Your task to perform on an android device: check storage Image 0: 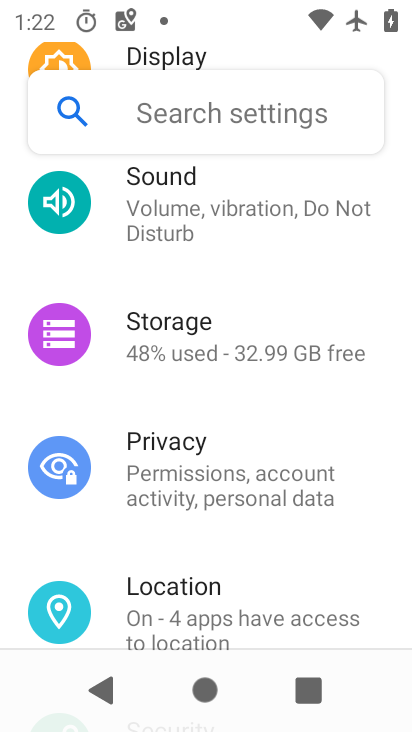
Step 0: press home button
Your task to perform on an android device: check storage Image 1: 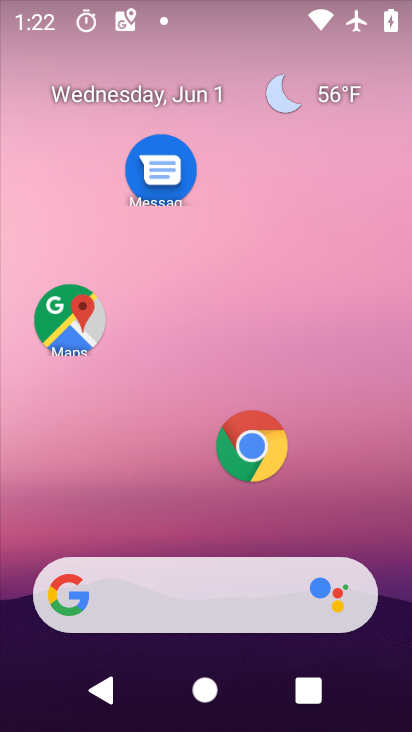
Step 1: drag from (196, 348) to (260, 55)
Your task to perform on an android device: check storage Image 2: 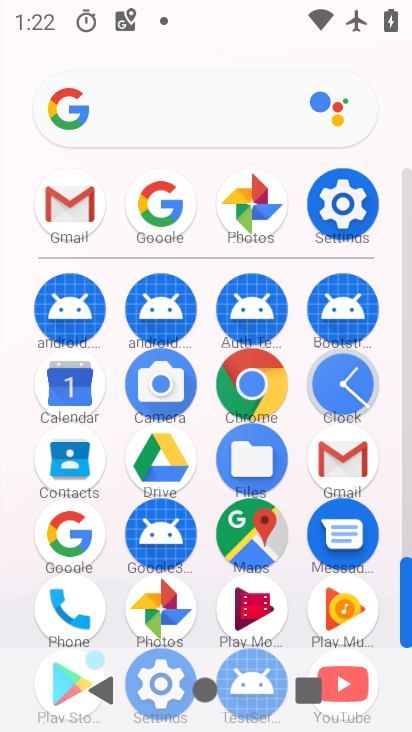
Step 2: drag from (212, 266) to (120, 18)
Your task to perform on an android device: check storage Image 3: 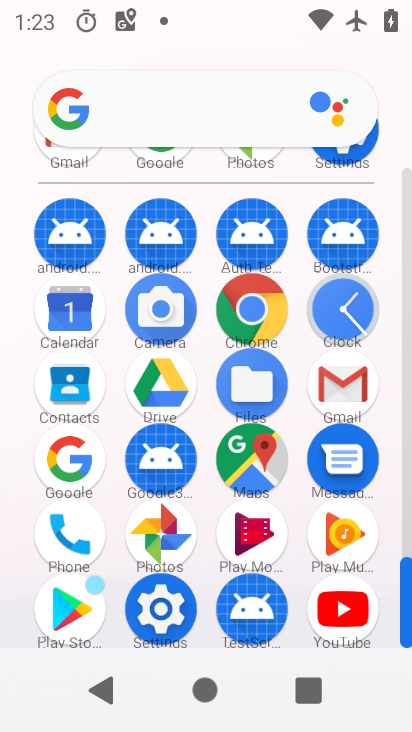
Step 3: drag from (191, 193) to (188, 45)
Your task to perform on an android device: check storage Image 4: 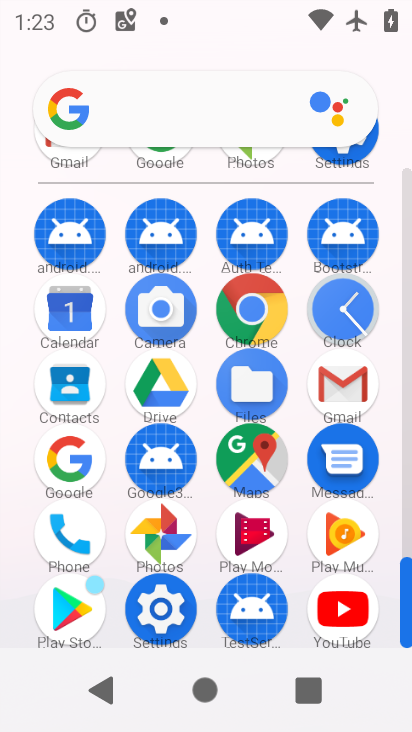
Step 4: click (158, 620)
Your task to perform on an android device: check storage Image 5: 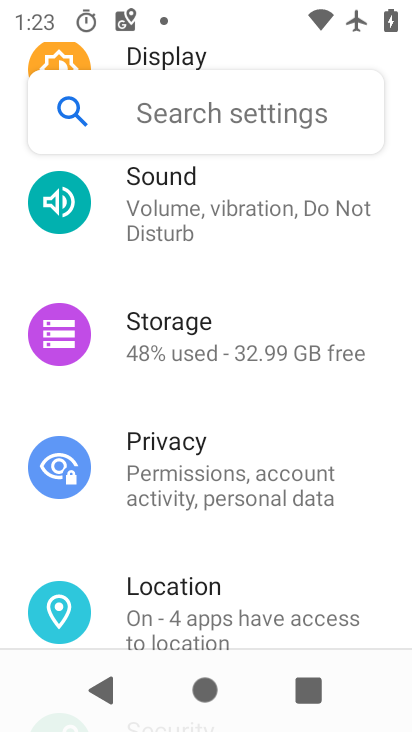
Step 5: click (236, 352)
Your task to perform on an android device: check storage Image 6: 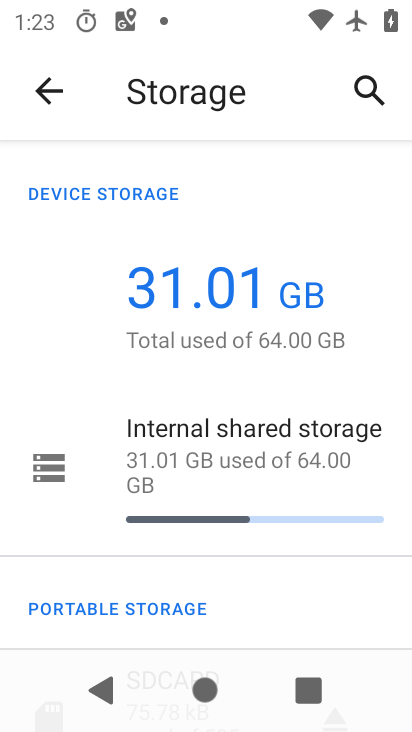
Step 6: click (279, 486)
Your task to perform on an android device: check storage Image 7: 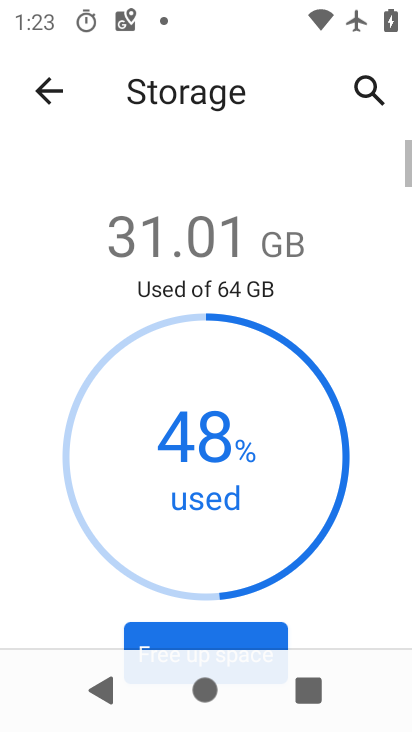
Step 7: task complete